Your task to perform on an android device: Open settings Image 0: 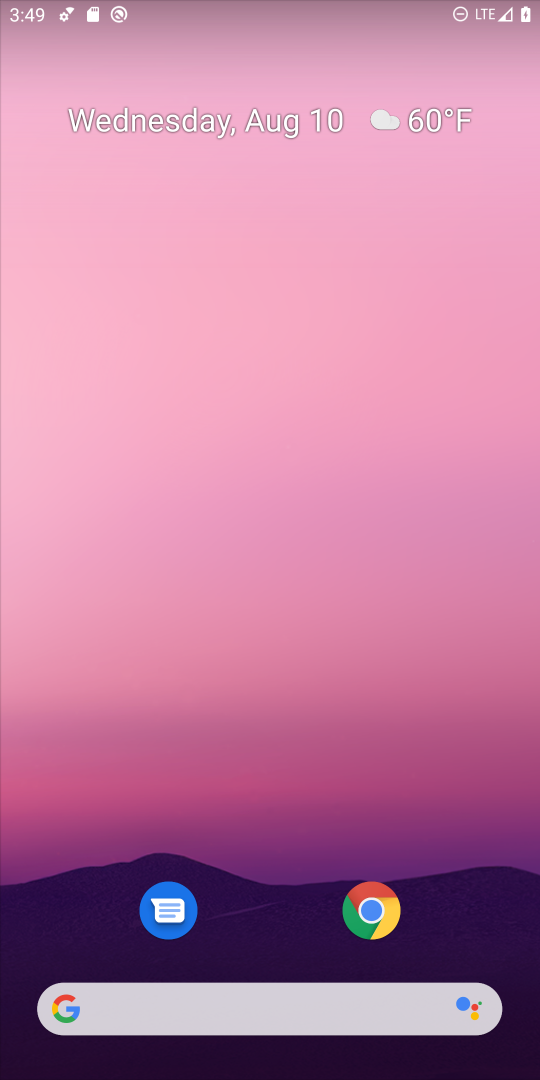
Step 0: drag from (270, 947) to (283, 152)
Your task to perform on an android device: Open settings Image 1: 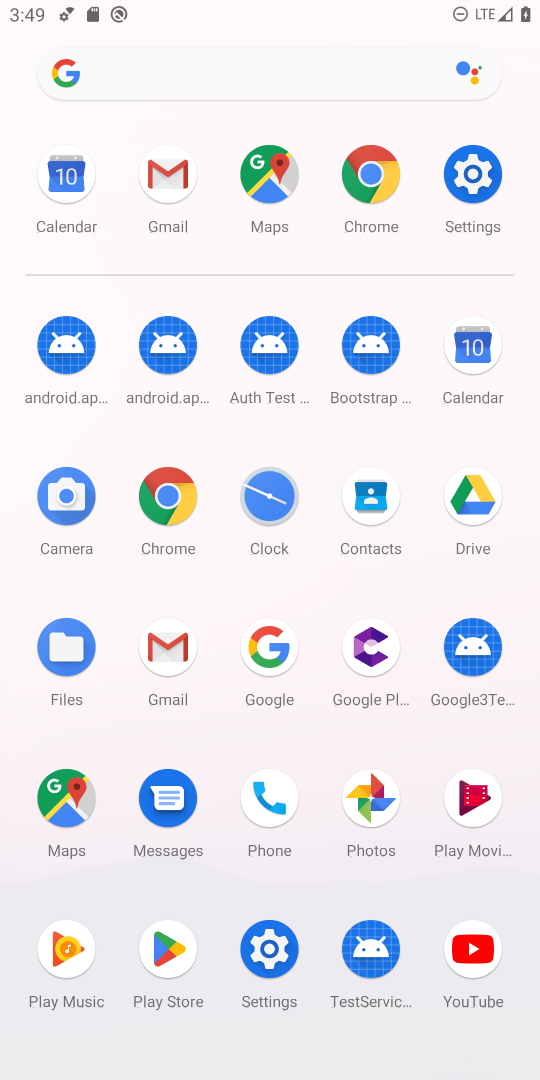
Step 1: click (466, 175)
Your task to perform on an android device: Open settings Image 2: 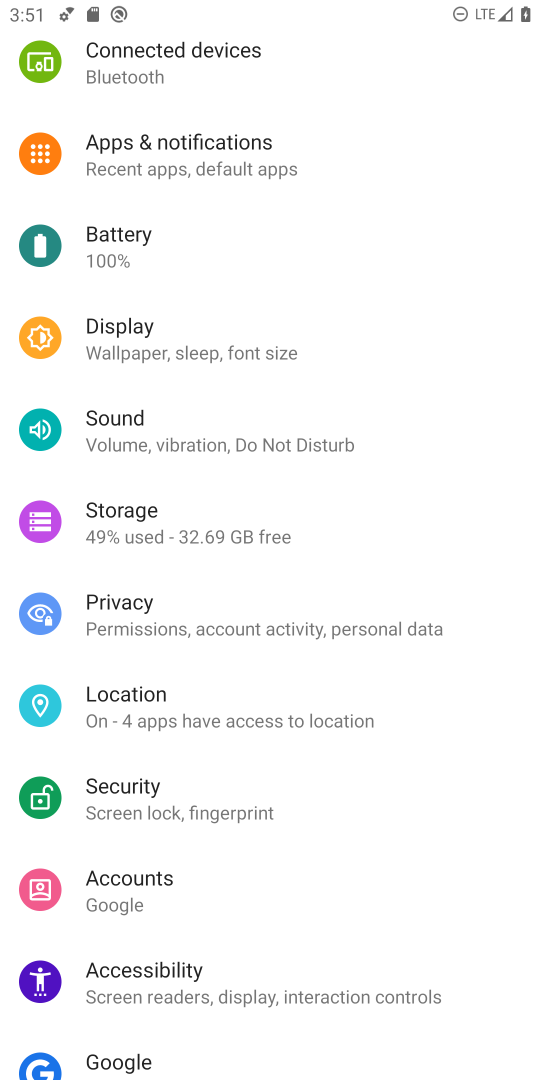
Step 2: task complete